Your task to perform on an android device: open app "Spotify" (install if not already installed), go to login, and select forgot password Image 0: 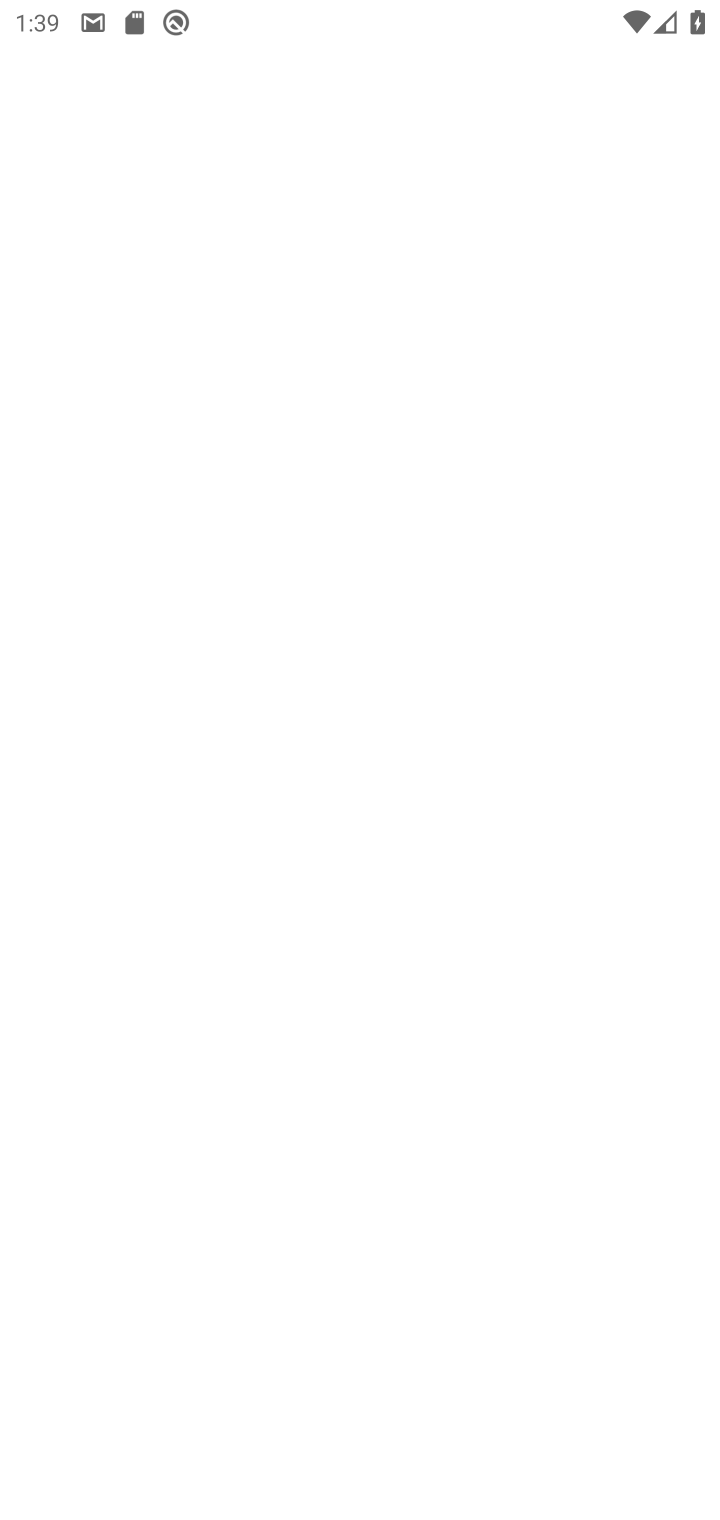
Step 0: press home button
Your task to perform on an android device: open app "Spotify" (install if not already installed), go to login, and select forgot password Image 1: 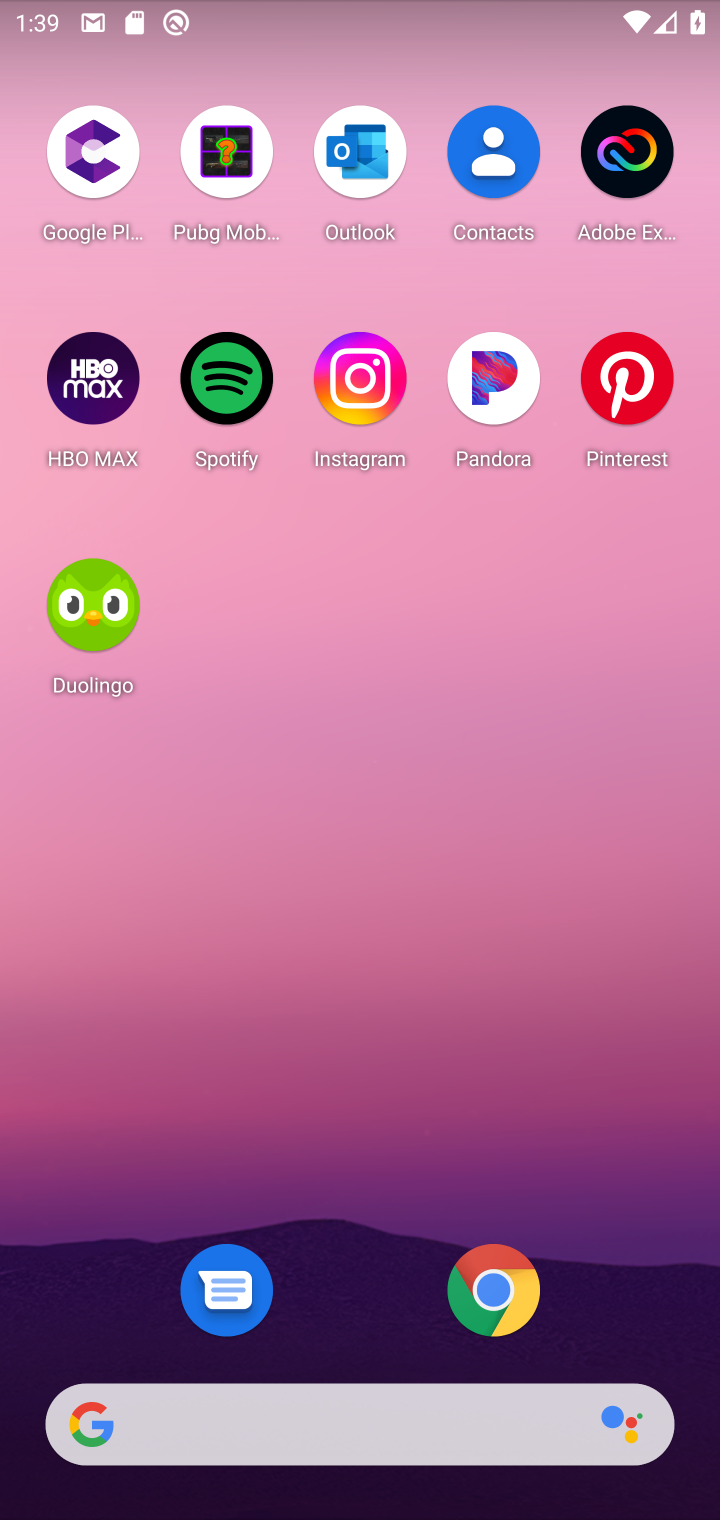
Step 1: drag from (318, 1321) to (262, 71)
Your task to perform on an android device: open app "Spotify" (install if not already installed), go to login, and select forgot password Image 2: 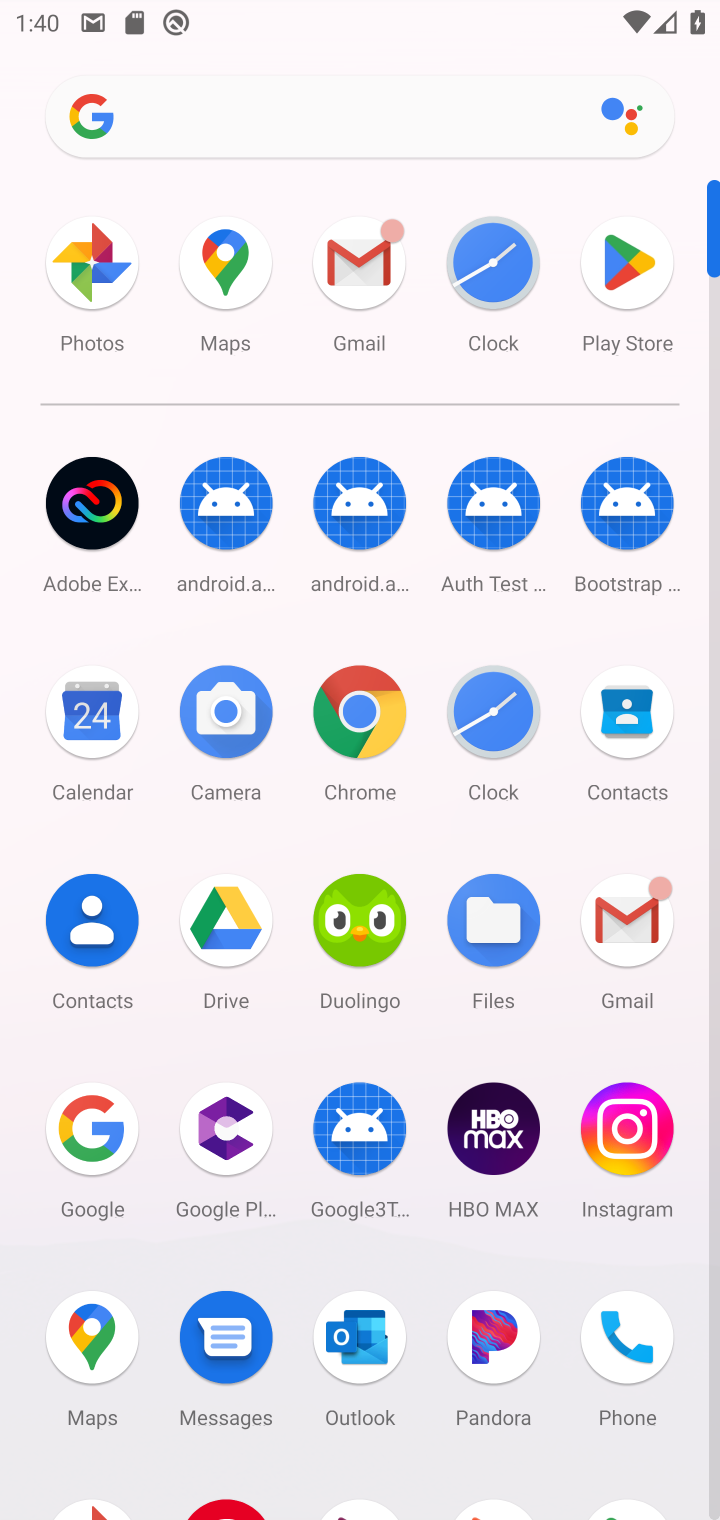
Step 2: click (626, 401)
Your task to perform on an android device: open app "Spotify" (install if not already installed), go to login, and select forgot password Image 3: 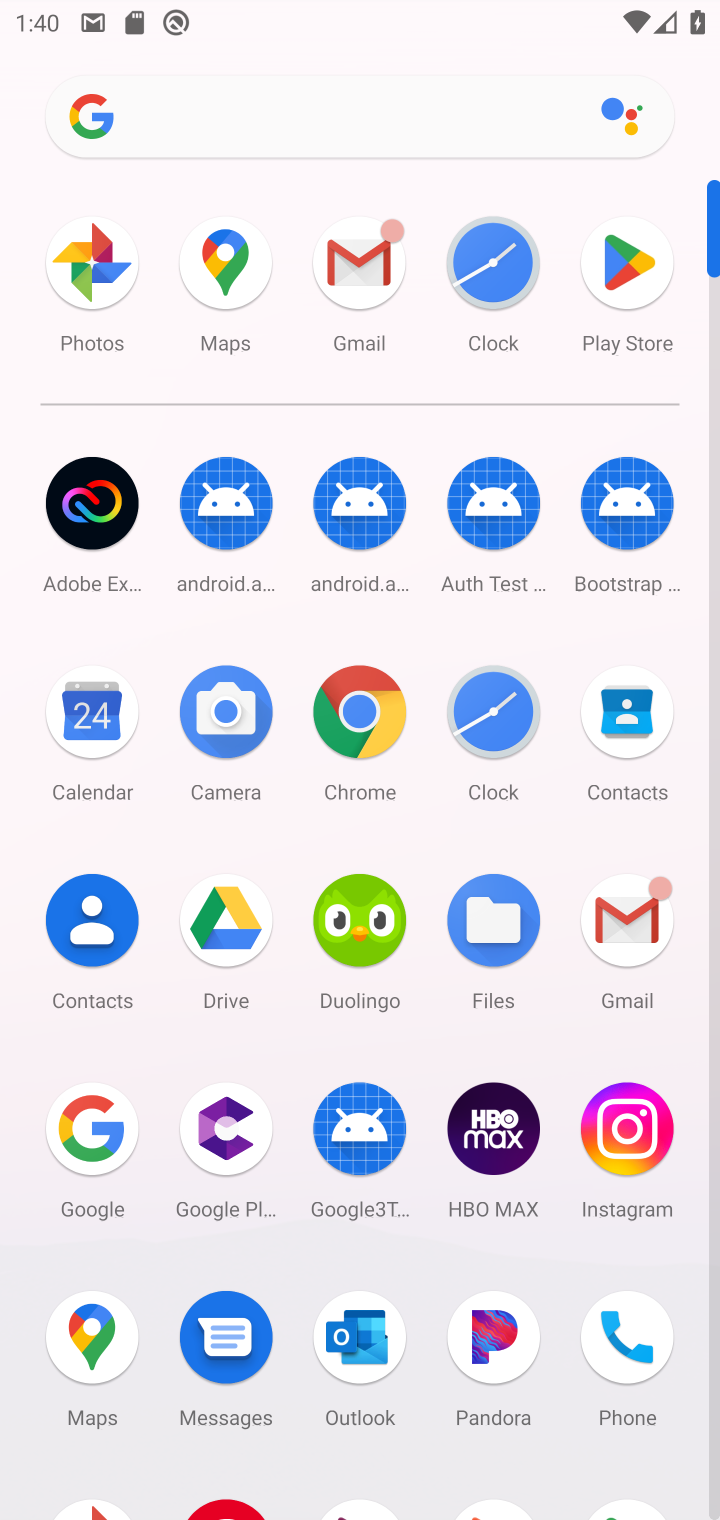
Step 3: click (620, 270)
Your task to perform on an android device: open app "Spotify" (install if not already installed), go to login, and select forgot password Image 4: 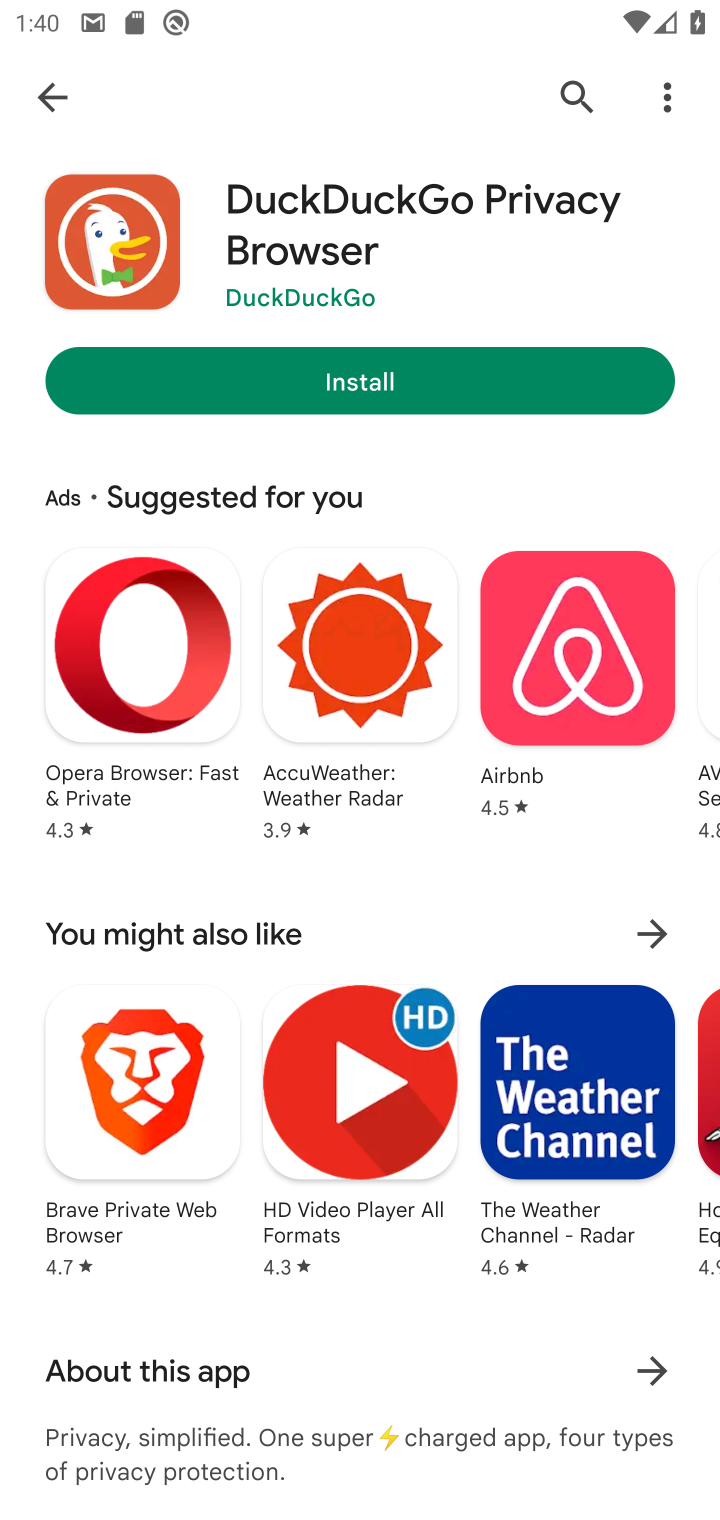
Step 4: click (52, 82)
Your task to perform on an android device: open app "Spotify" (install if not already installed), go to login, and select forgot password Image 5: 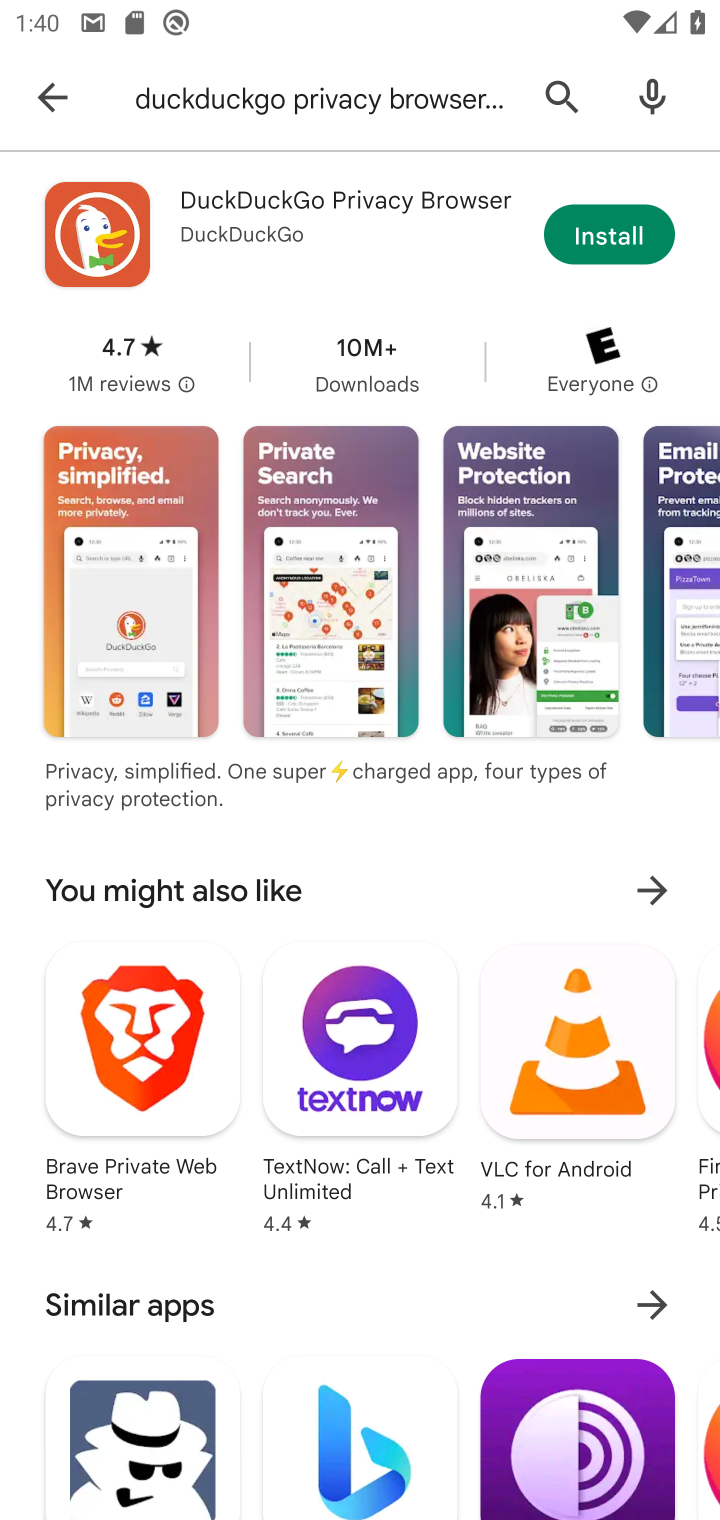
Step 5: click (53, 90)
Your task to perform on an android device: open app "Spotify" (install if not already installed), go to login, and select forgot password Image 6: 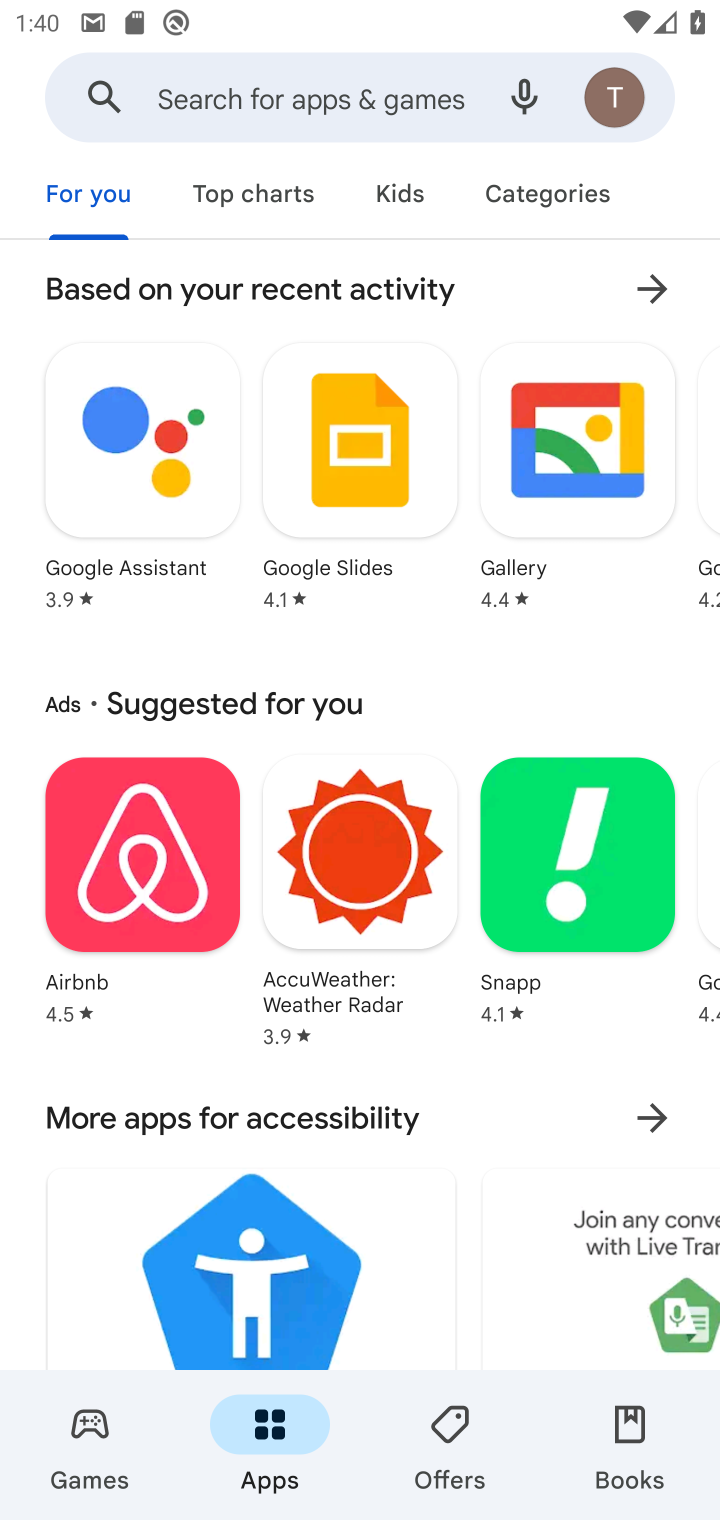
Step 6: click (257, 94)
Your task to perform on an android device: open app "Spotify" (install if not already installed), go to login, and select forgot password Image 7: 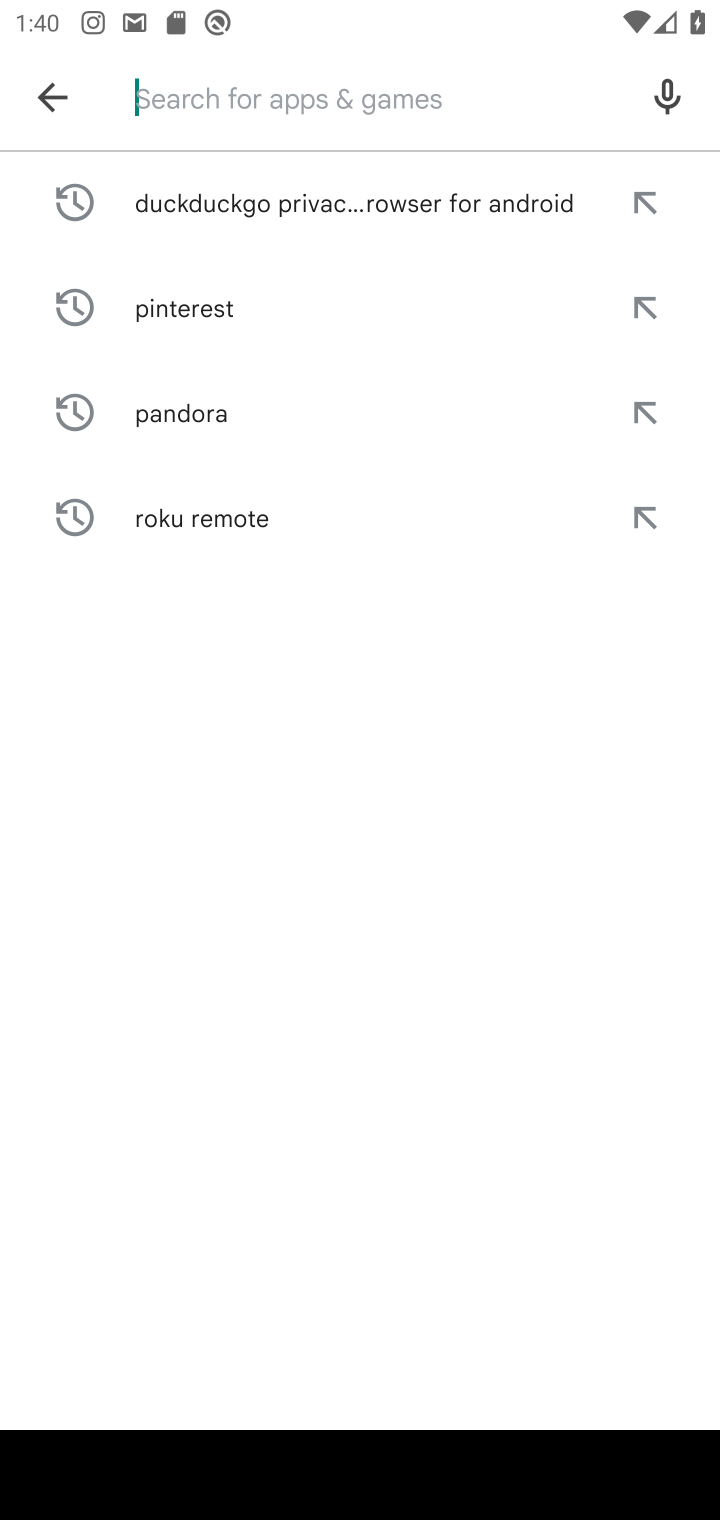
Step 7: type "Spotify"
Your task to perform on an android device: open app "Spotify" (install if not already installed), go to login, and select forgot password Image 8: 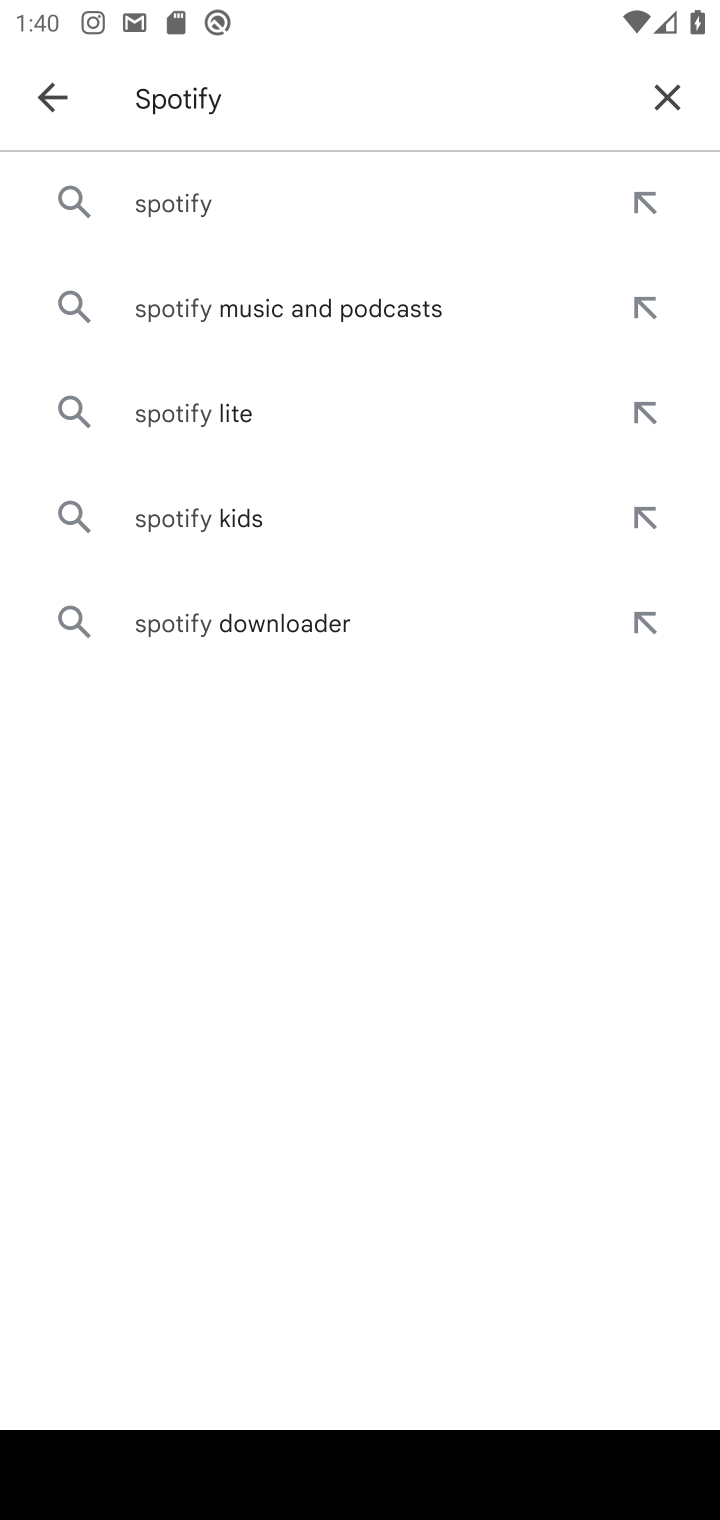
Step 8: click (166, 210)
Your task to perform on an android device: open app "Spotify" (install if not already installed), go to login, and select forgot password Image 9: 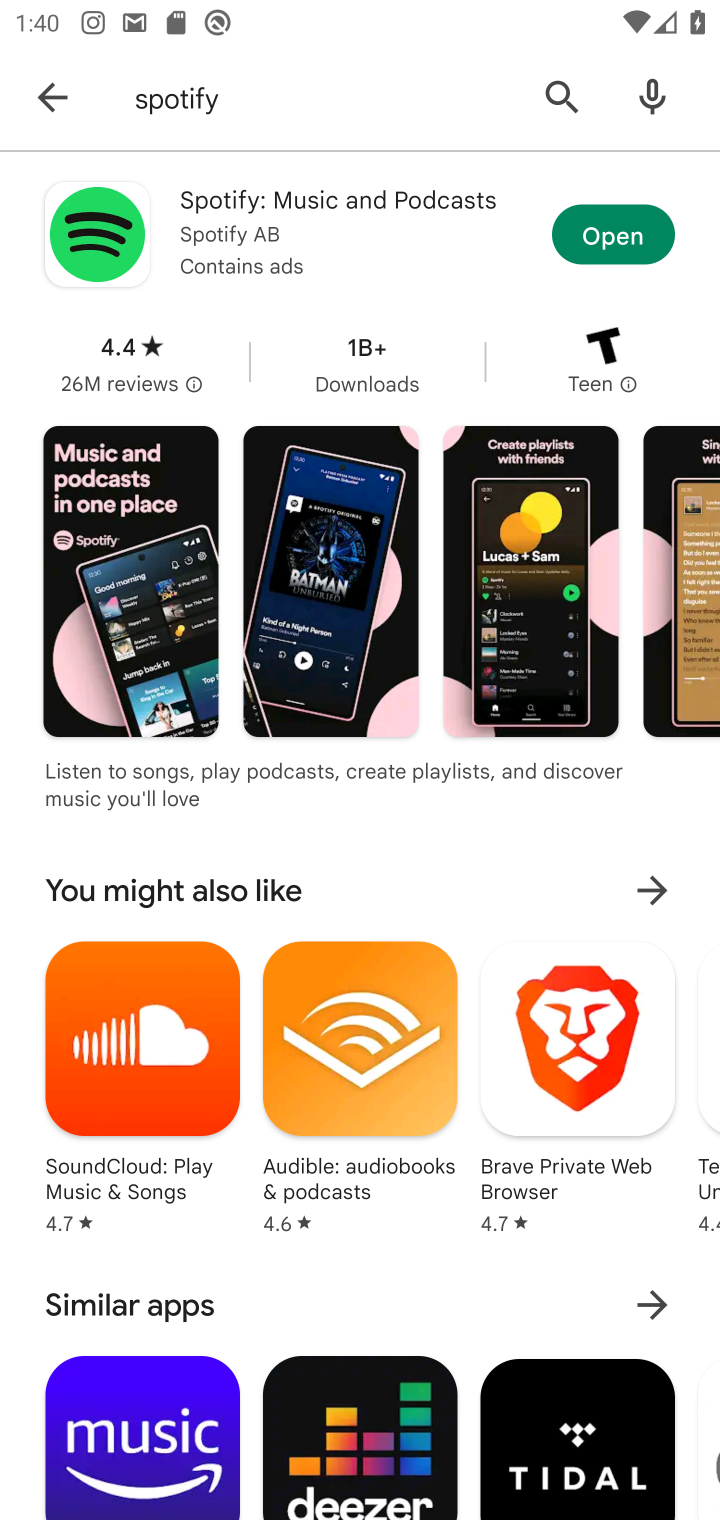
Step 9: click (632, 233)
Your task to perform on an android device: open app "Spotify" (install if not already installed), go to login, and select forgot password Image 10: 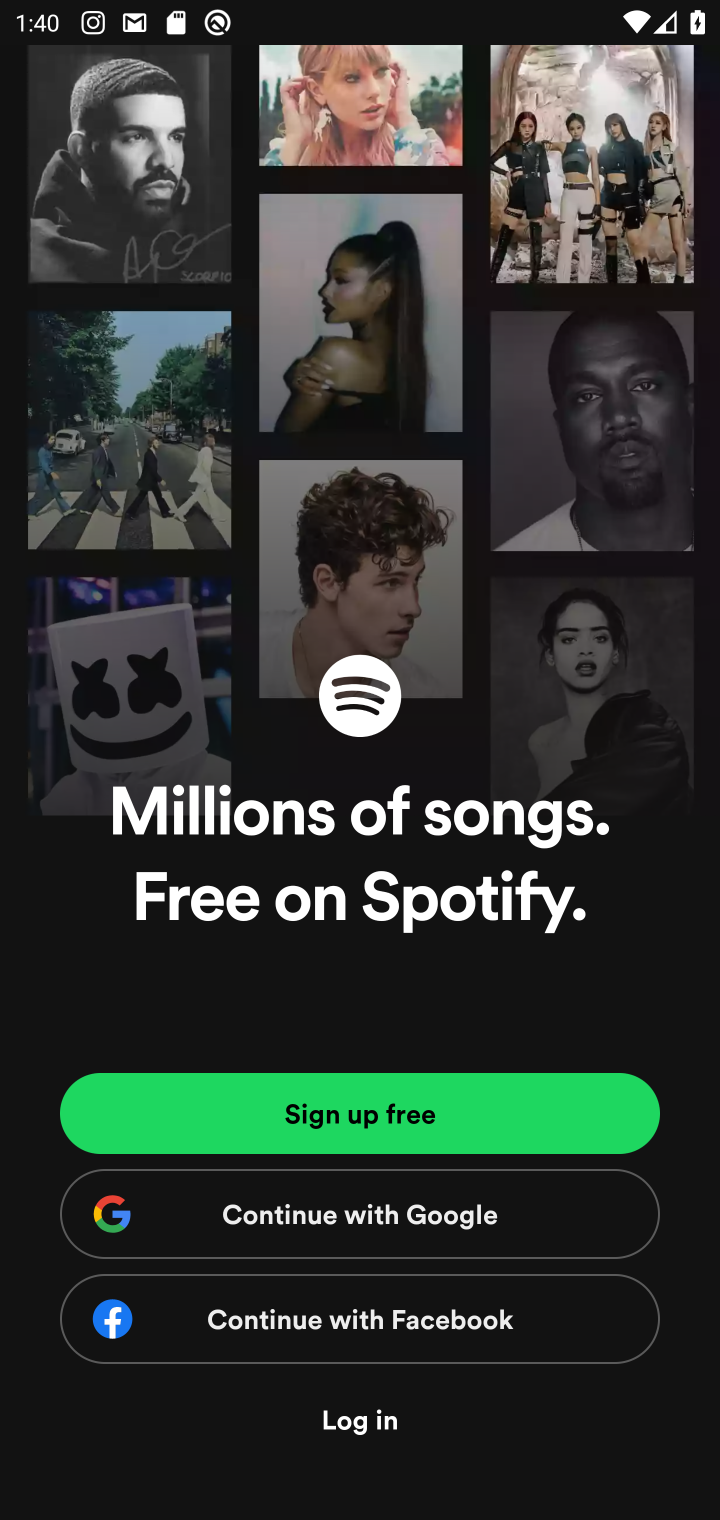
Step 10: task complete